Your task to perform on an android device: Clear the cart on ebay. Search for macbook pro 13 inch on ebay, select the first entry, and add it to the cart. Image 0: 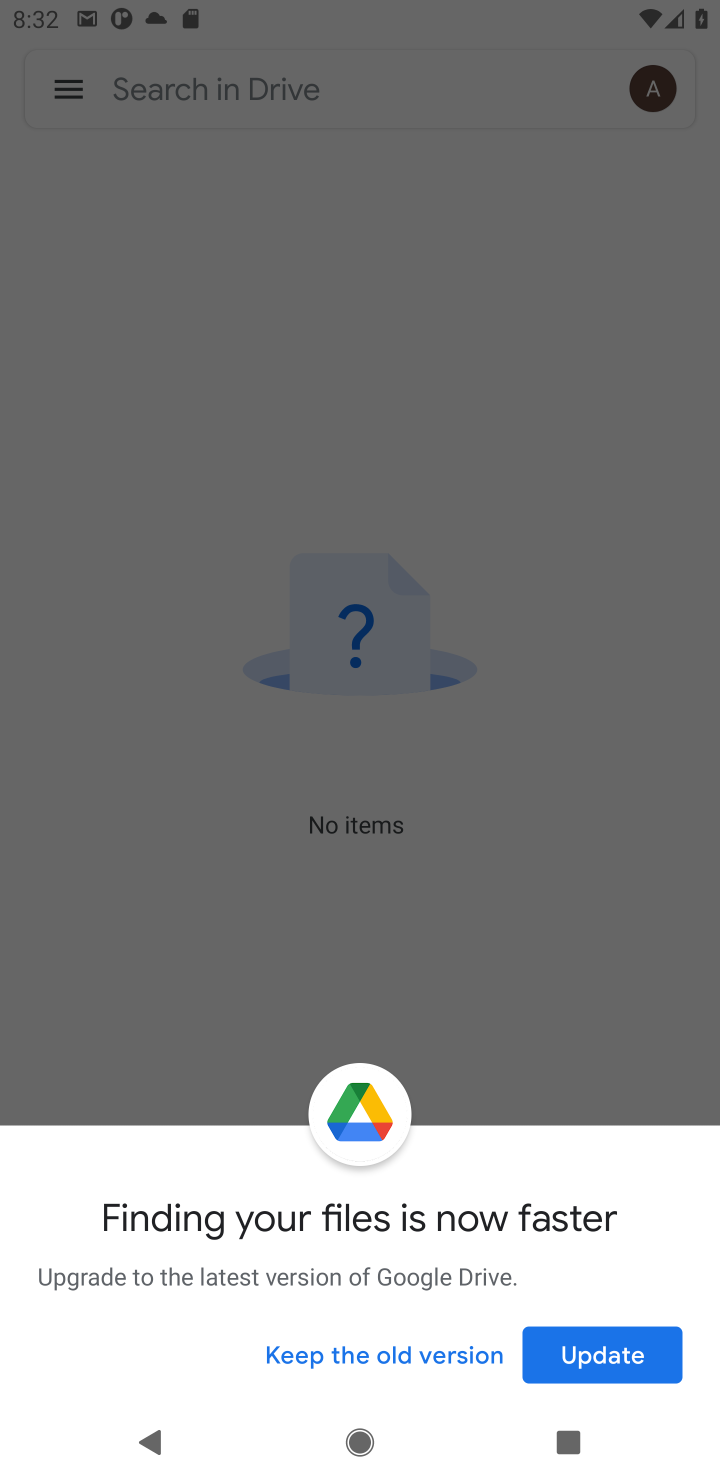
Step 0: press home button
Your task to perform on an android device: Clear the cart on ebay. Search for macbook pro 13 inch on ebay, select the first entry, and add it to the cart. Image 1: 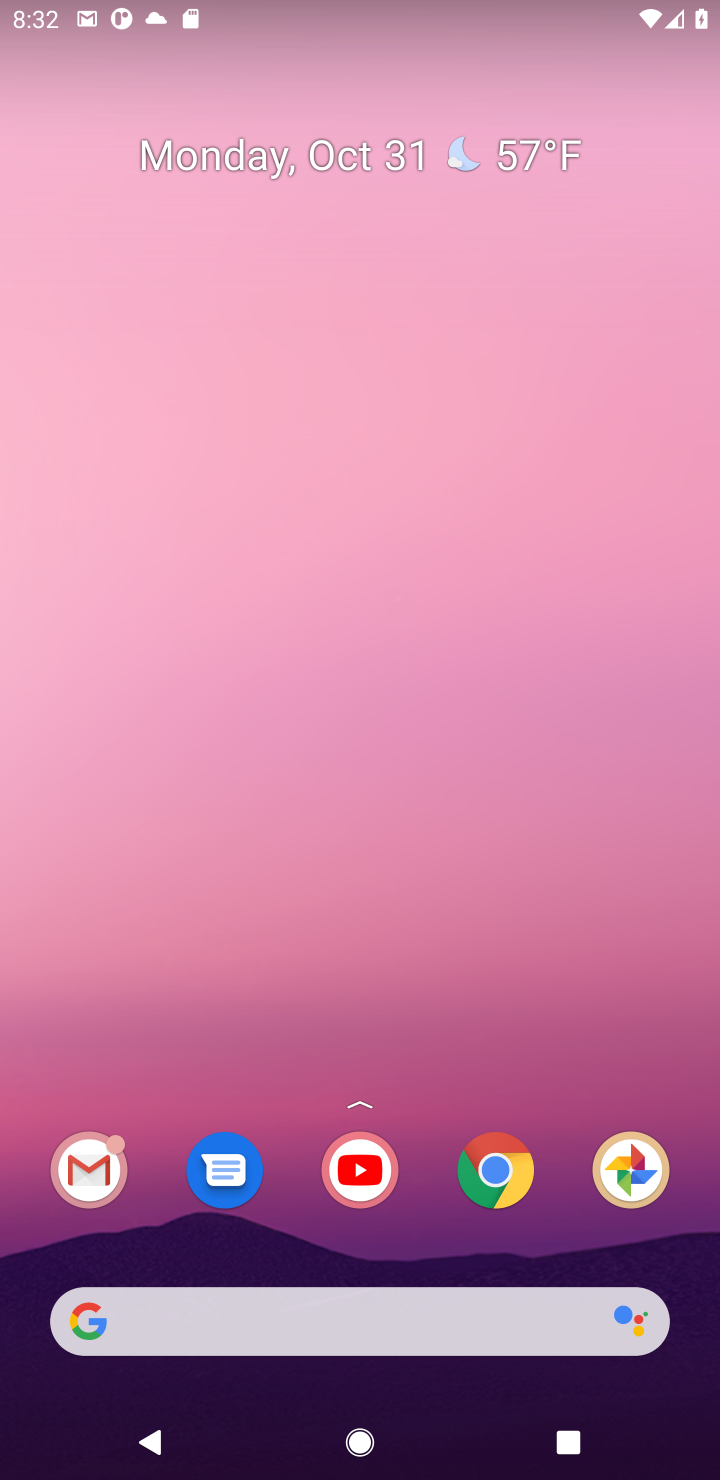
Step 1: click (485, 1176)
Your task to perform on an android device: Clear the cart on ebay. Search for macbook pro 13 inch on ebay, select the first entry, and add it to the cart. Image 2: 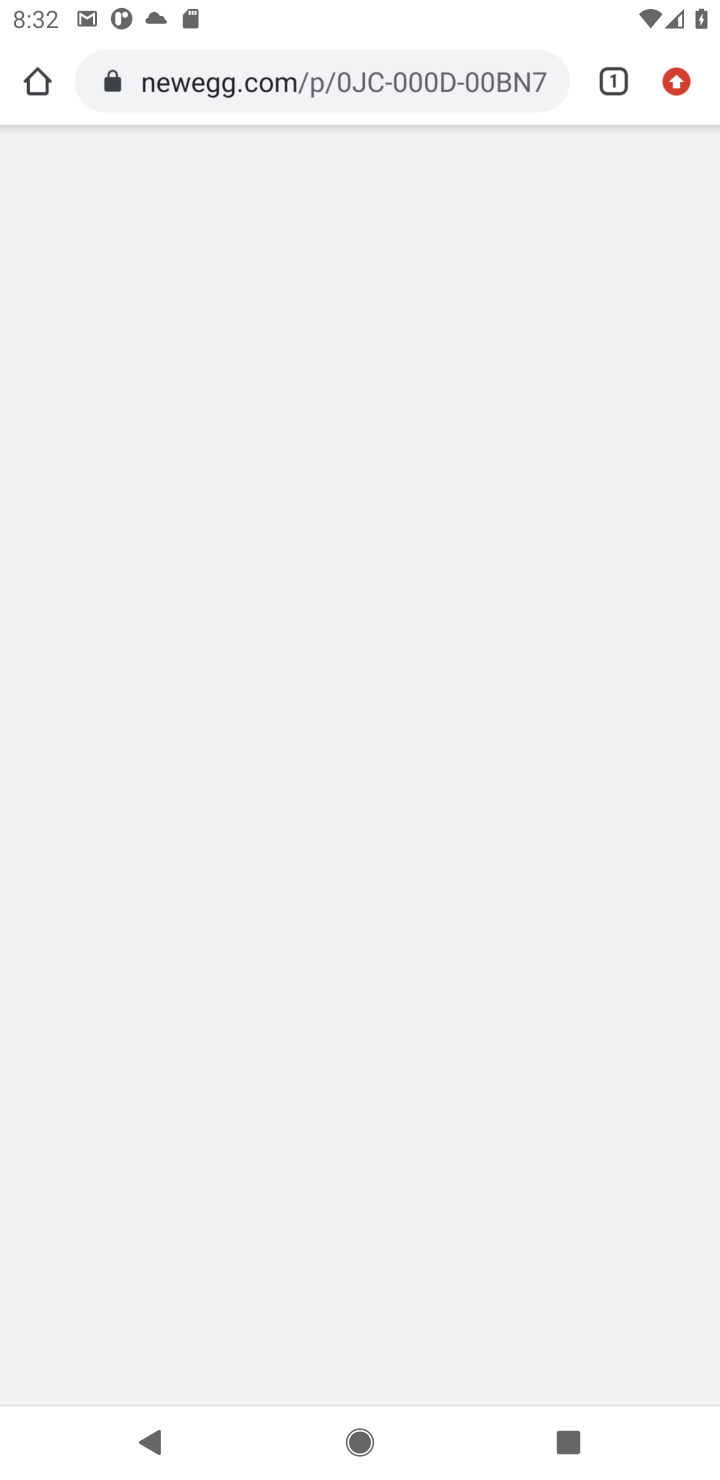
Step 2: click (266, 72)
Your task to perform on an android device: Clear the cart on ebay. Search for macbook pro 13 inch on ebay, select the first entry, and add it to the cart. Image 3: 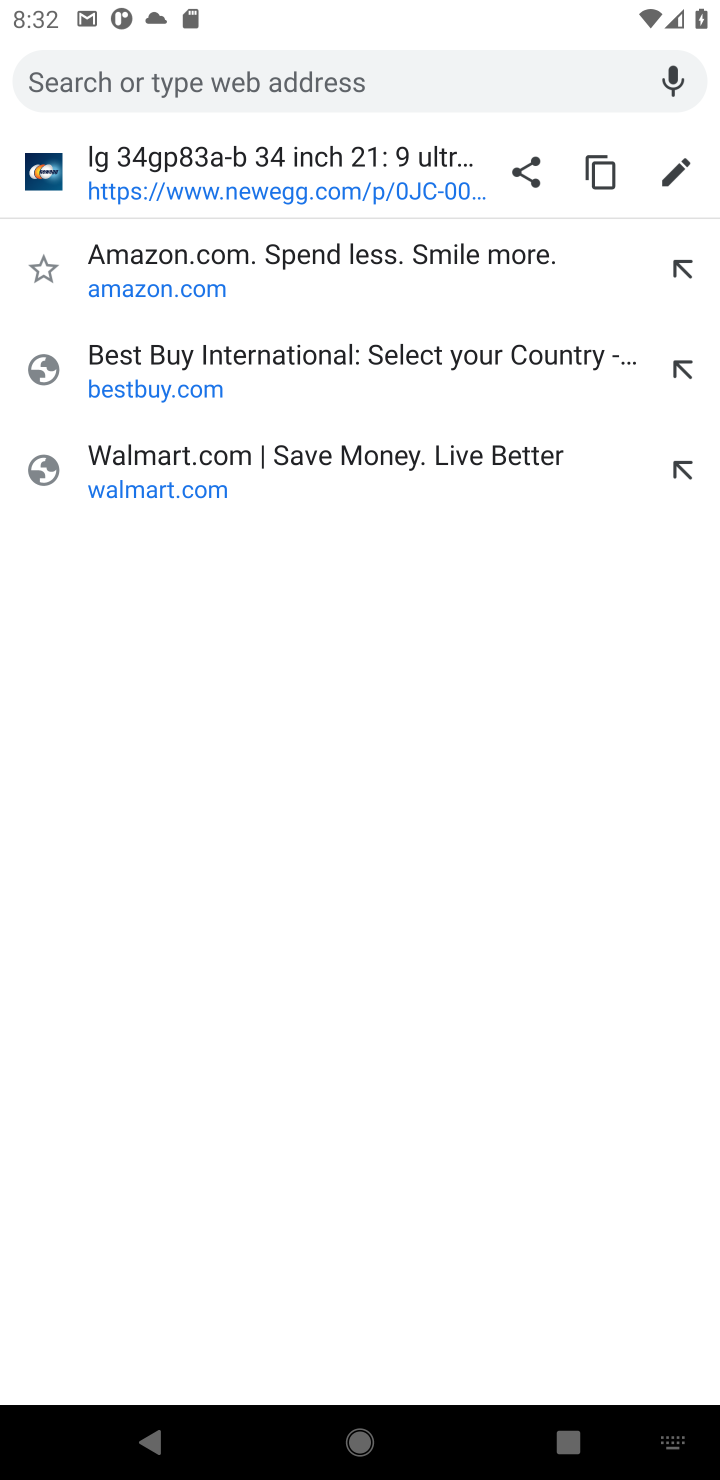
Step 3: type "ebay"
Your task to perform on an android device: Clear the cart on ebay. Search for macbook pro 13 inch on ebay, select the first entry, and add it to the cart. Image 4: 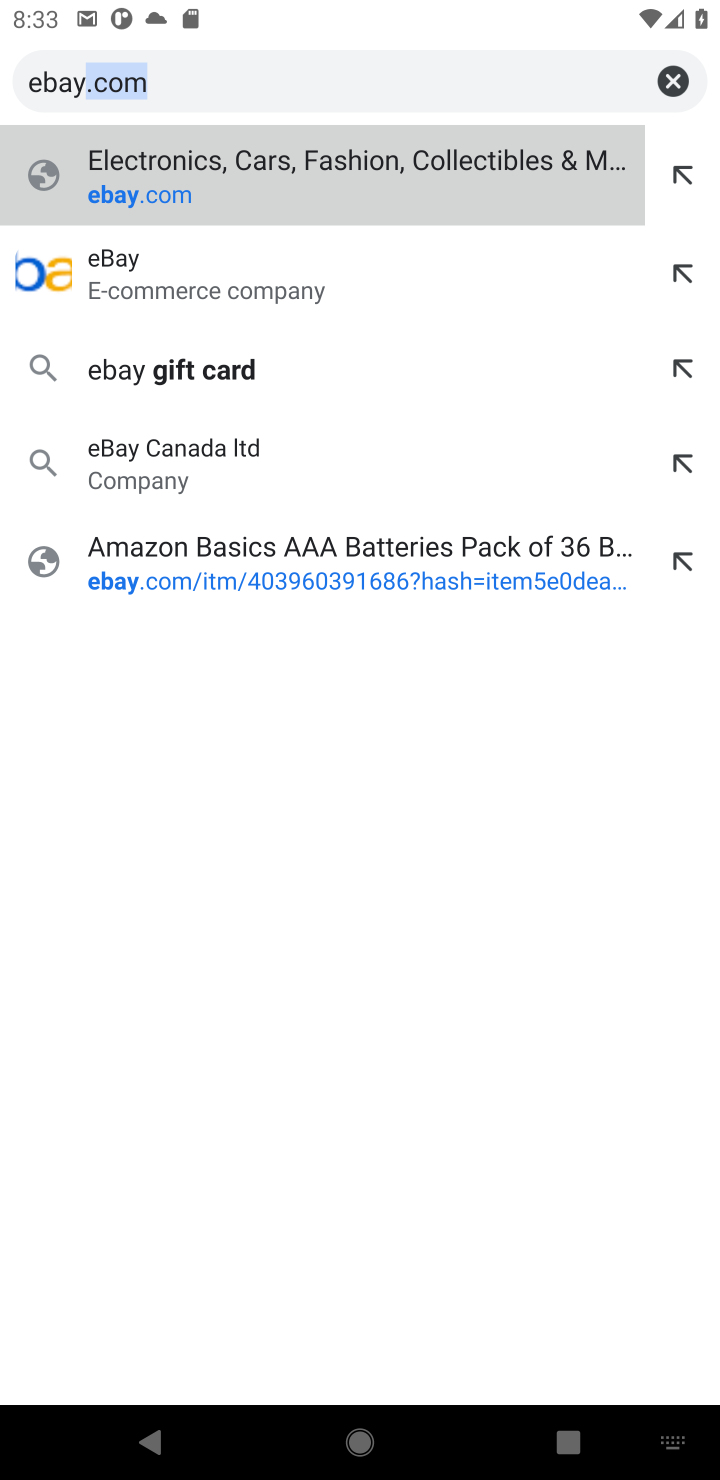
Step 4: click (119, 257)
Your task to perform on an android device: Clear the cart on ebay. Search for macbook pro 13 inch on ebay, select the first entry, and add it to the cart. Image 5: 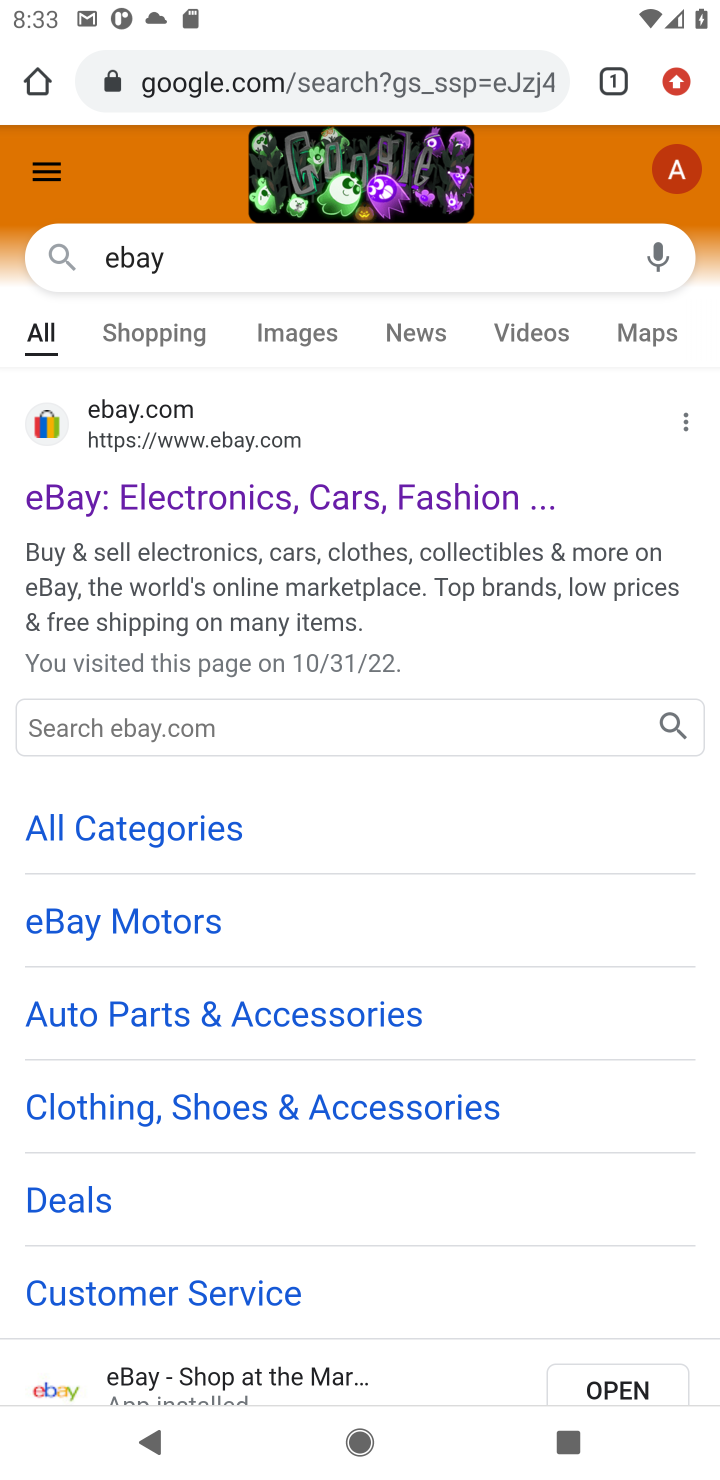
Step 5: click (221, 509)
Your task to perform on an android device: Clear the cart on ebay. Search for macbook pro 13 inch on ebay, select the first entry, and add it to the cart. Image 6: 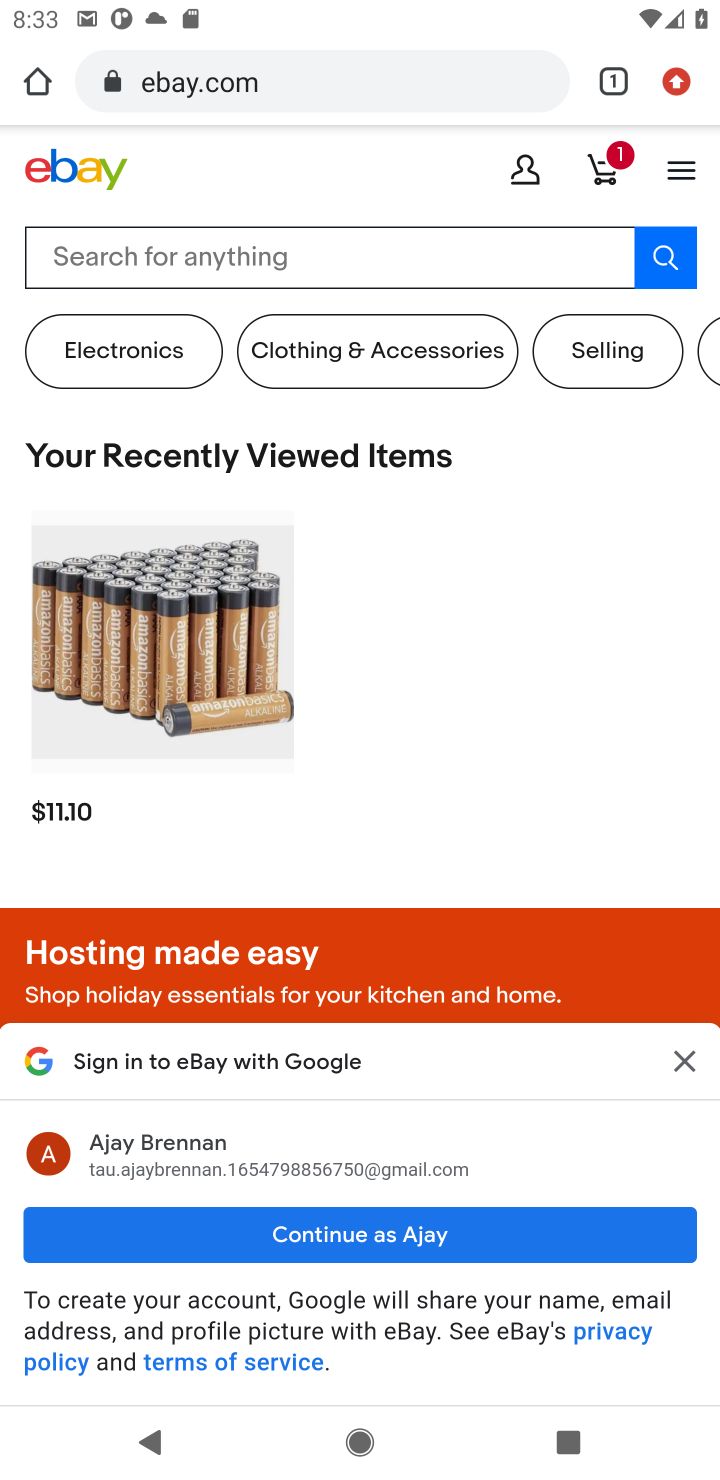
Step 6: click (116, 267)
Your task to perform on an android device: Clear the cart on ebay. Search for macbook pro 13 inch on ebay, select the first entry, and add it to the cart. Image 7: 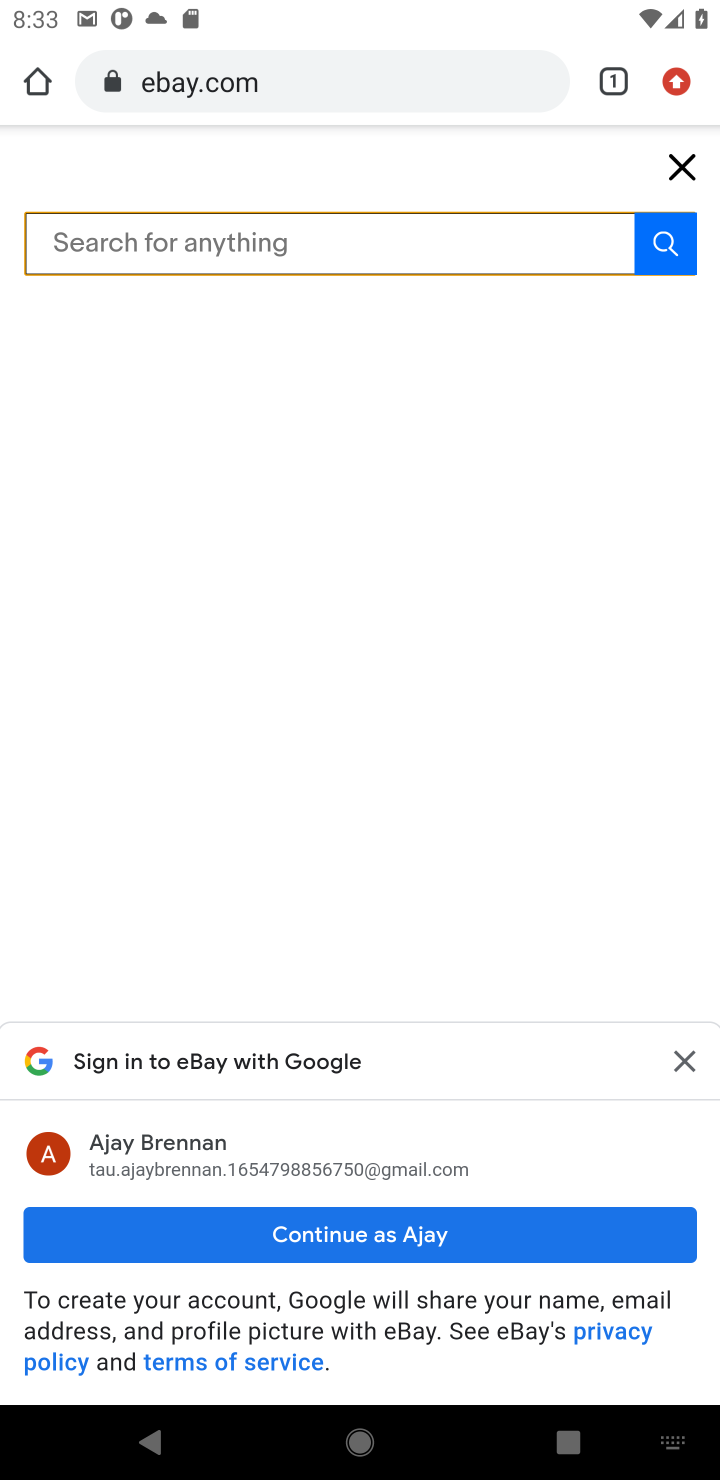
Step 7: type "macbook pro 13 inch "
Your task to perform on an android device: Clear the cart on ebay. Search for macbook pro 13 inch on ebay, select the first entry, and add it to the cart. Image 8: 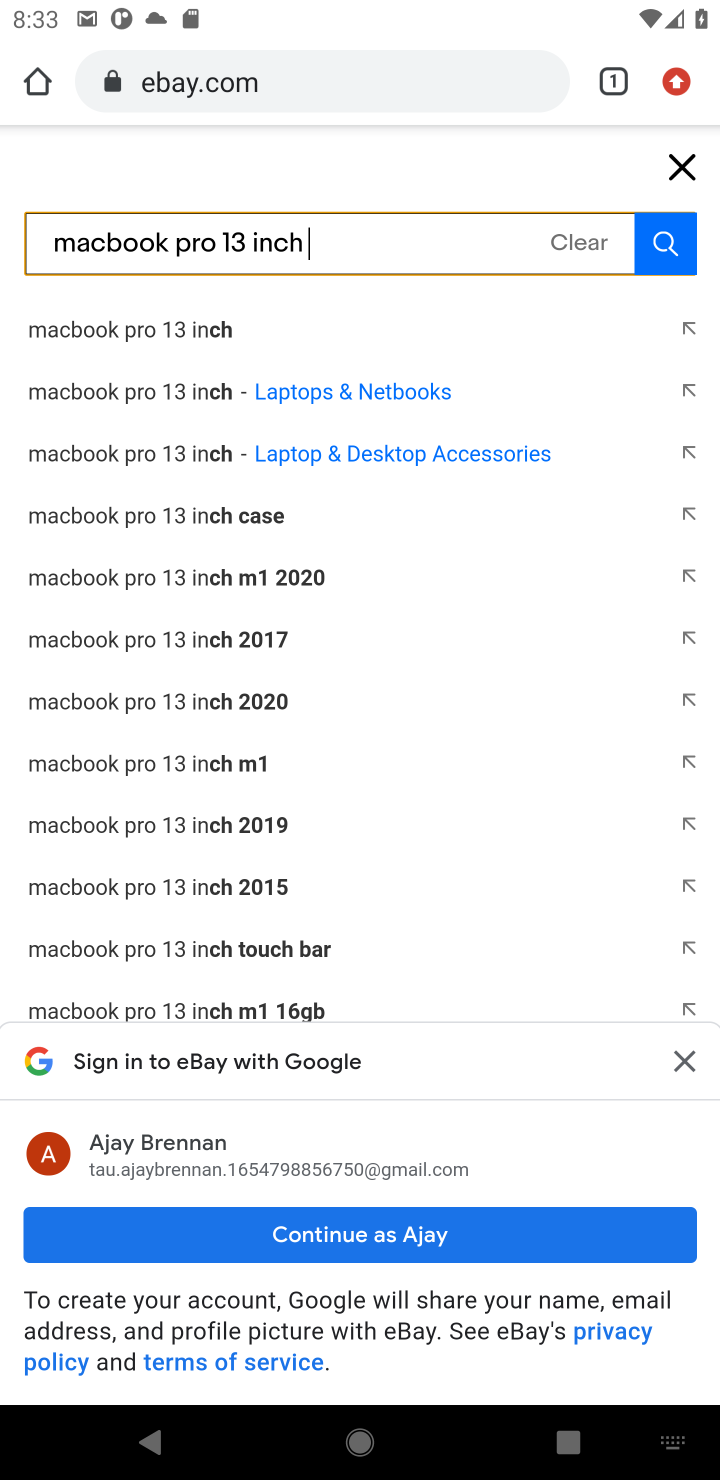
Step 8: click (58, 336)
Your task to perform on an android device: Clear the cart on ebay. Search for macbook pro 13 inch on ebay, select the first entry, and add it to the cart. Image 9: 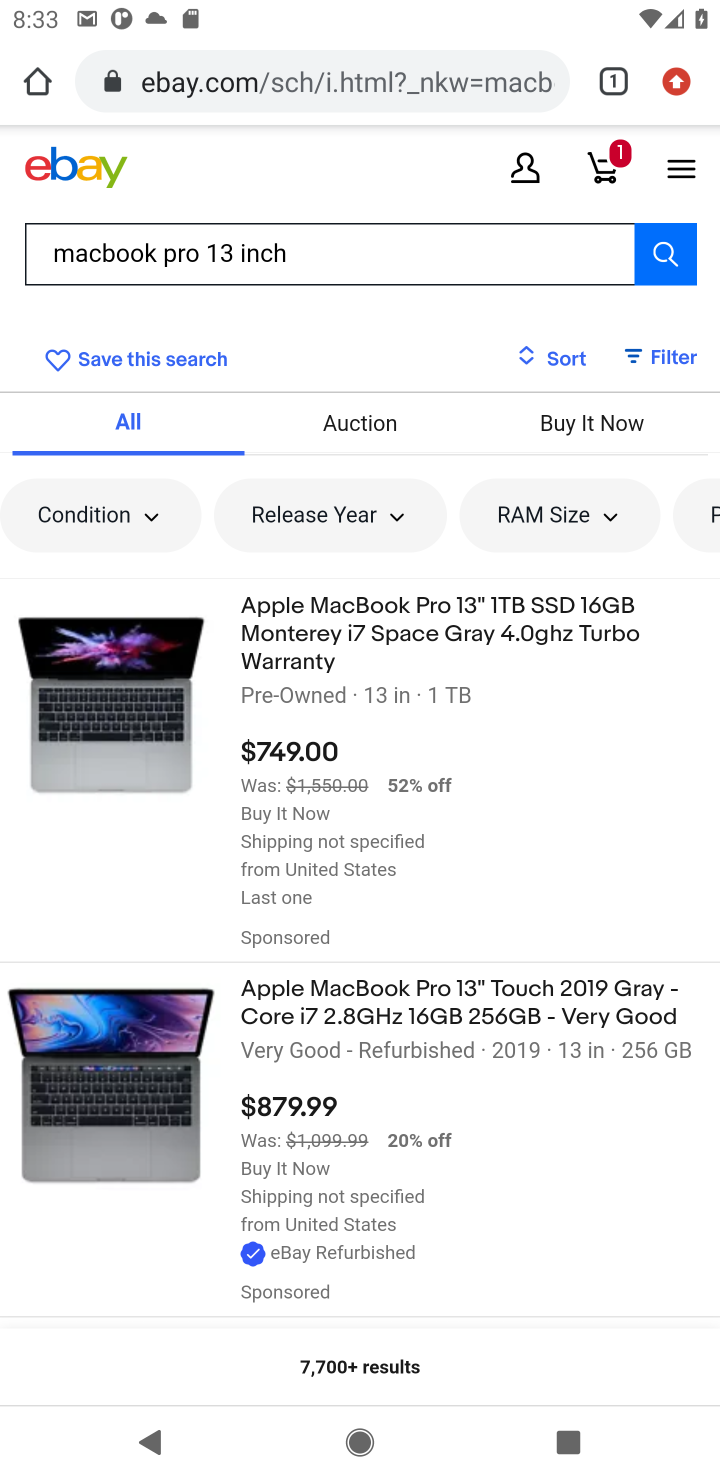
Step 9: click (453, 598)
Your task to perform on an android device: Clear the cart on ebay. Search for macbook pro 13 inch on ebay, select the first entry, and add it to the cart. Image 10: 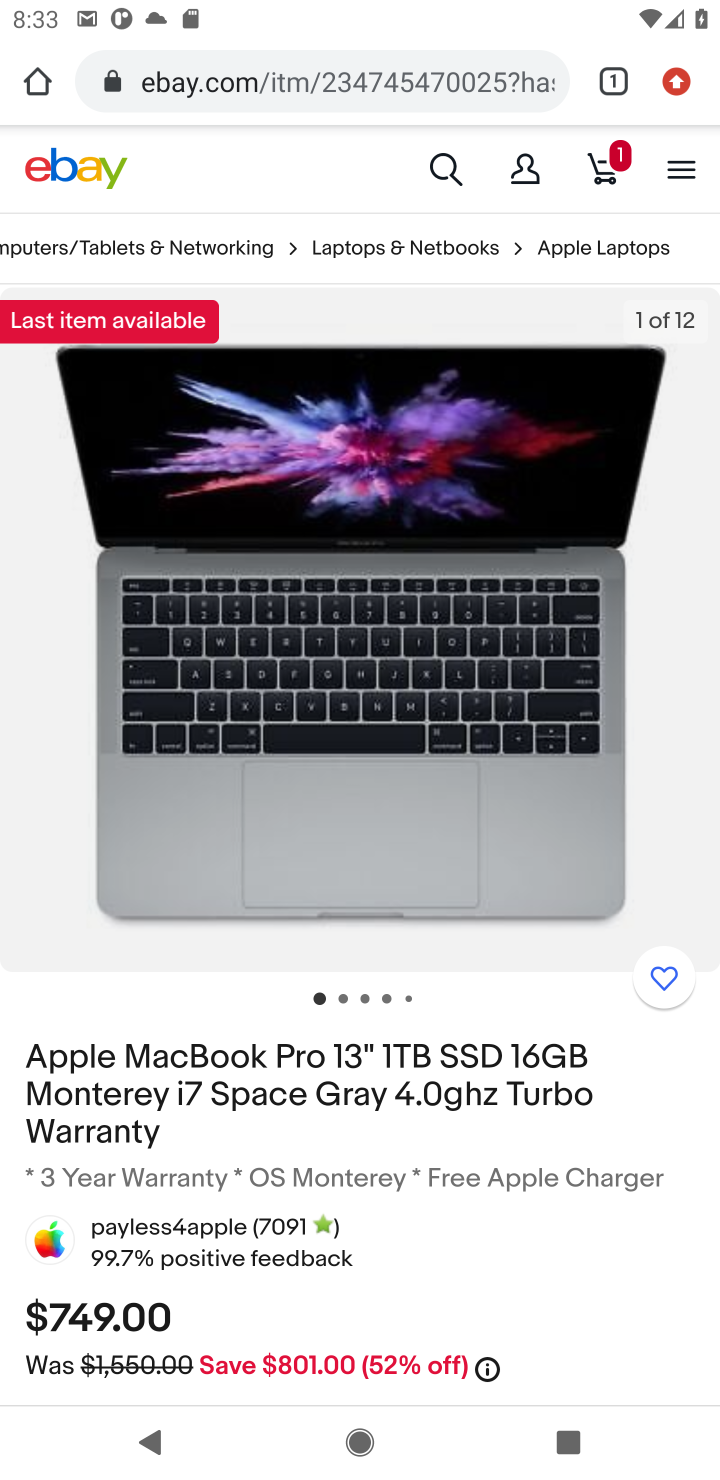
Step 10: drag from (374, 1204) to (433, 407)
Your task to perform on an android device: Clear the cart on ebay. Search for macbook pro 13 inch on ebay, select the first entry, and add it to the cart. Image 11: 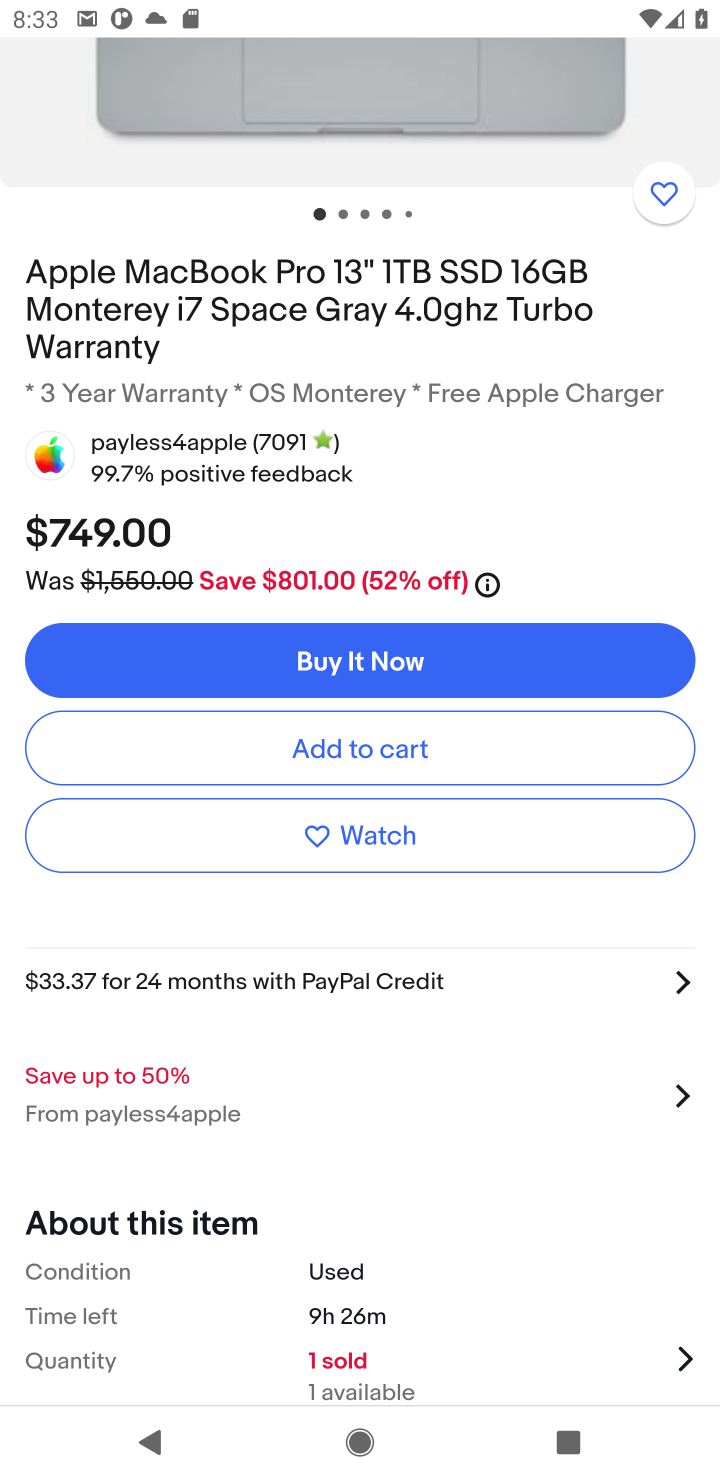
Step 11: click (438, 741)
Your task to perform on an android device: Clear the cart on ebay. Search for macbook pro 13 inch on ebay, select the first entry, and add it to the cart. Image 12: 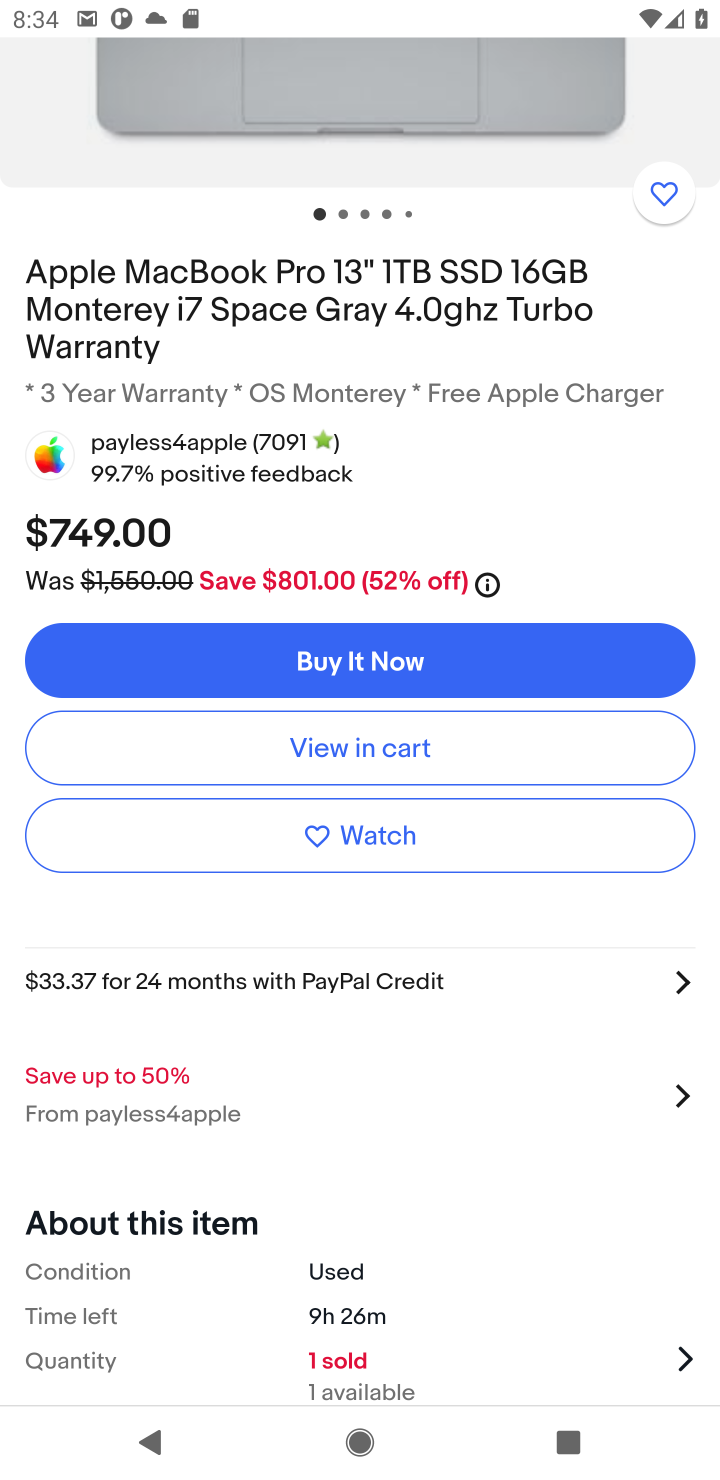
Step 12: task complete